Your task to perform on an android device: Open the calendar app, open the side menu, and click the "Day" option Image 0: 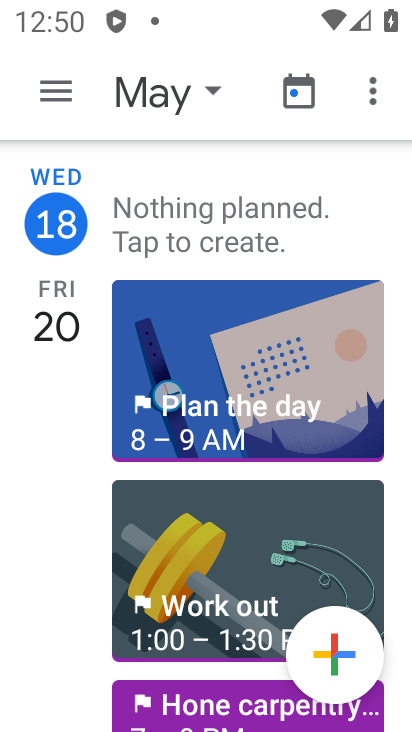
Step 0: click (52, 90)
Your task to perform on an android device: Open the calendar app, open the side menu, and click the "Day" option Image 1: 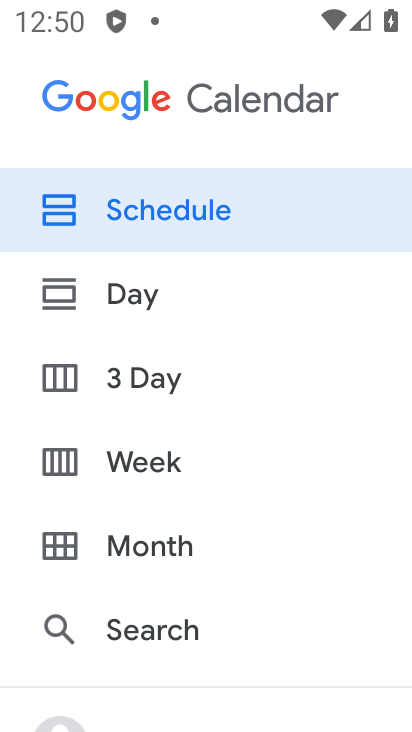
Step 1: click (132, 296)
Your task to perform on an android device: Open the calendar app, open the side menu, and click the "Day" option Image 2: 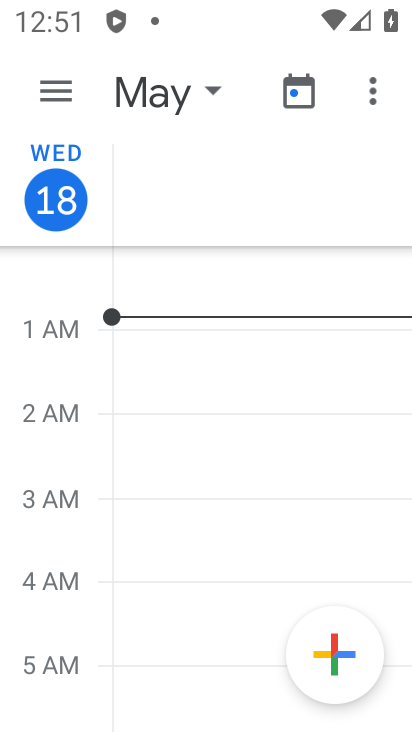
Step 2: task complete